Your task to perform on an android device: turn notification dots on Image 0: 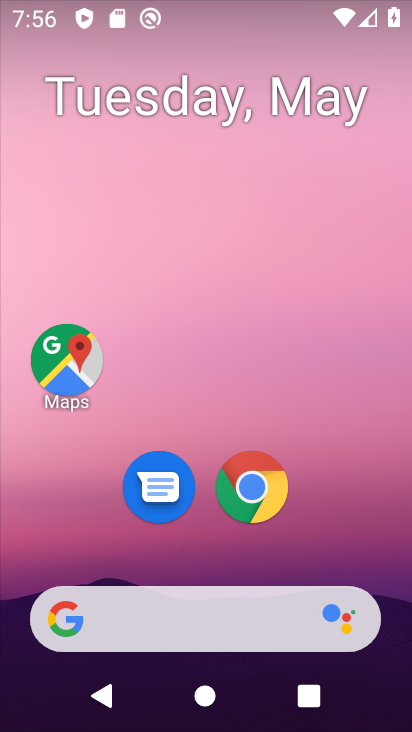
Step 0: drag from (330, 538) to (398, 122)
Your task to perform on an android device: turn notification dots on Image 1: 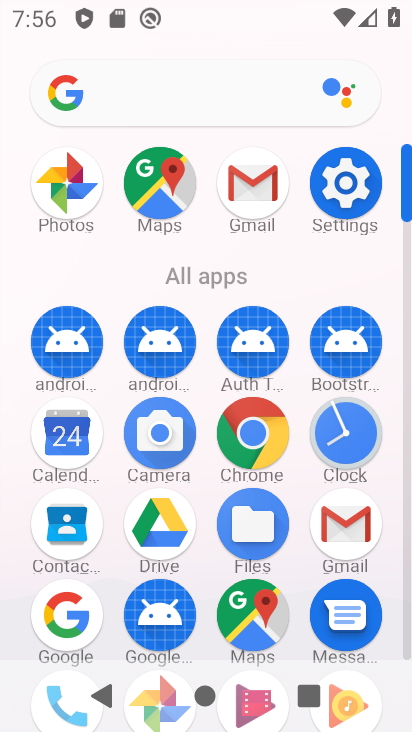
Step 1: click (339, 184)
Your task to perform on an android device: turn notification dots on Image 2: 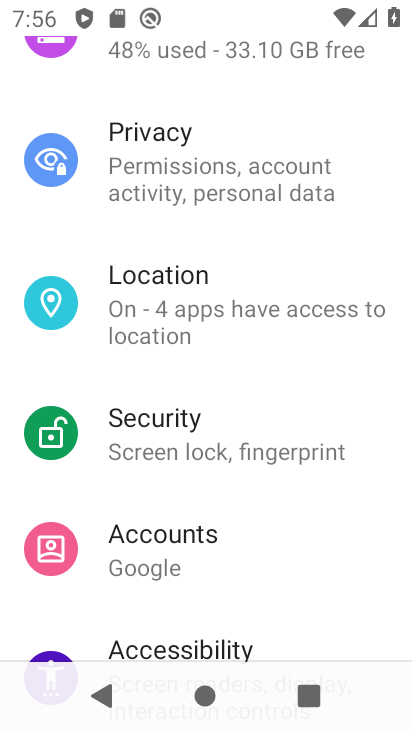
Step 2: drag from (352, 122) to (289, 513)
Your task to perform on an android device: turn notification dots on Image 3: 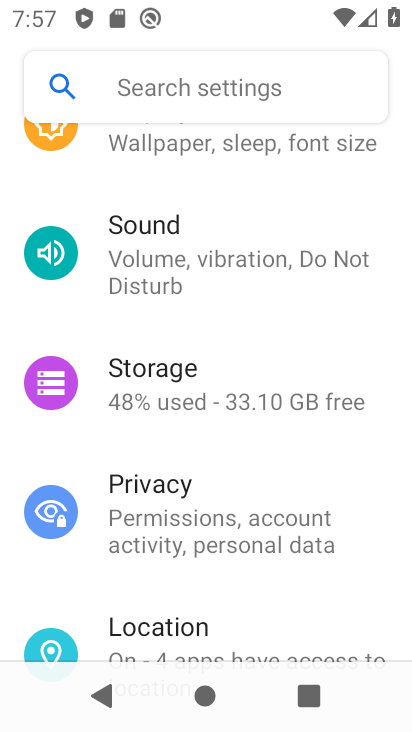
Step 3: drag from (303, 198) to (270, 551)
Your task to perform on an android device: turn notification dots on Image 4: 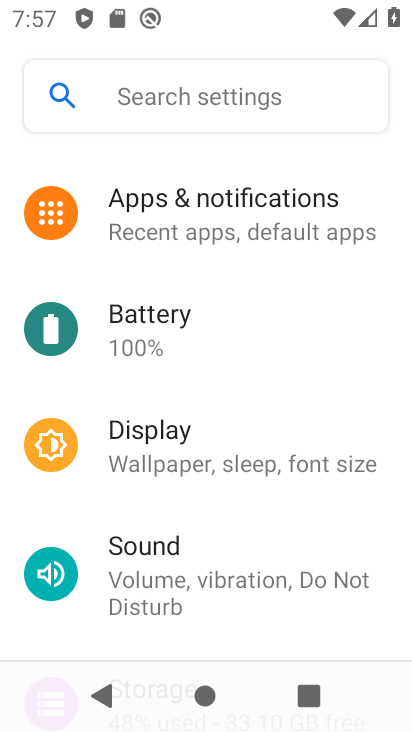
Step 4: click (281, 211)
Your task to perform on an android device: turn notification dots on Image 5: 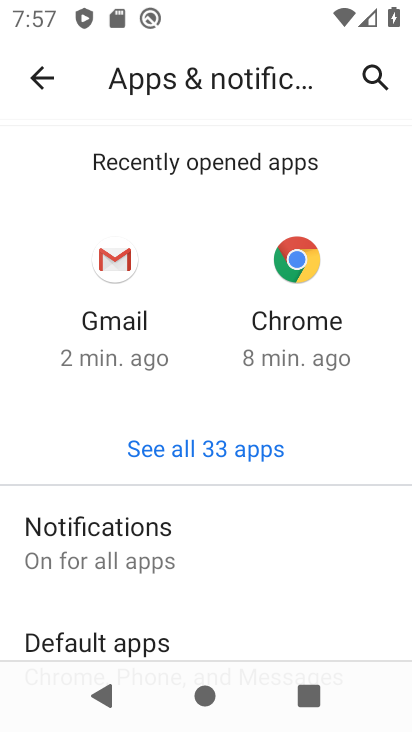
Step 5: click (134, 525)
Your task to perform on an android device: turn notification dots on Image 6: 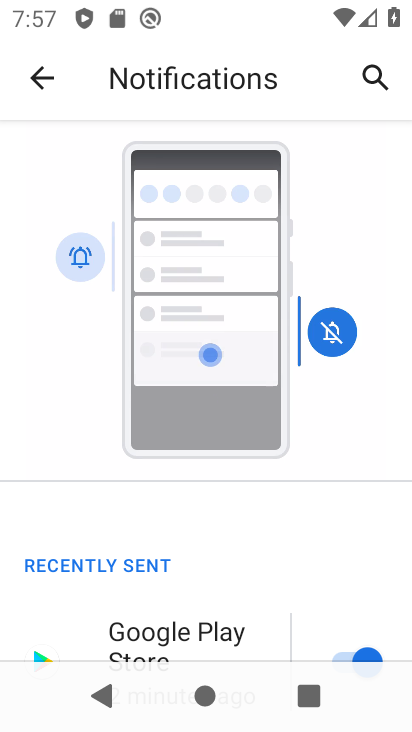
Step 6: drag from (295, 544) to (393, 188)
Your task to perform on an android device: turn notification dots on Image 7: 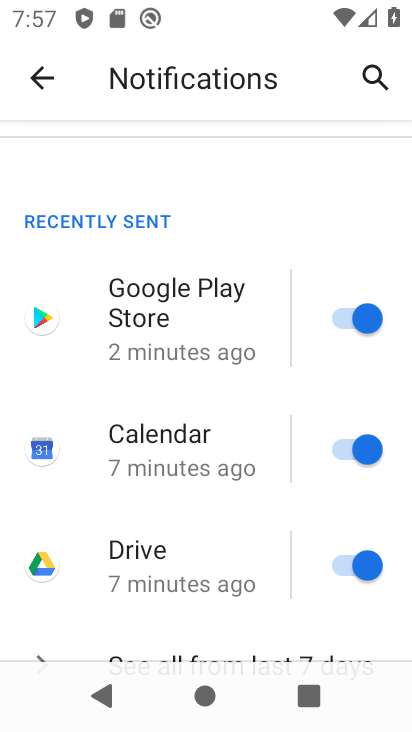
Step 7: drag from (305, 333) to (316, 198)
Your task to perform on an android device: turn notification dots on Image 8: 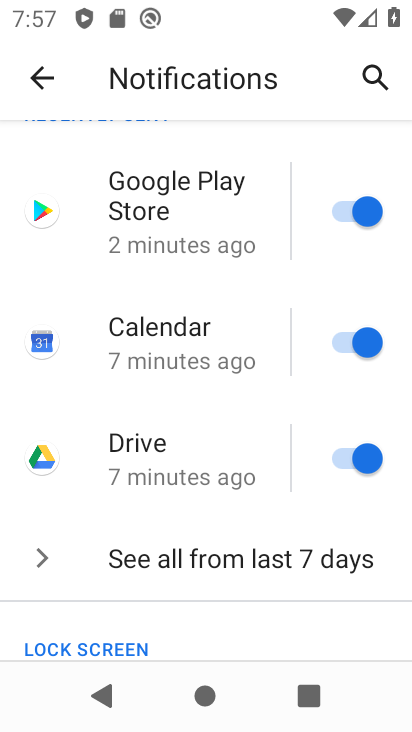
Step 8: drag from (273, 561) to (297, 330)
Your task to perform on an android device: turn notification dots on Image 9: 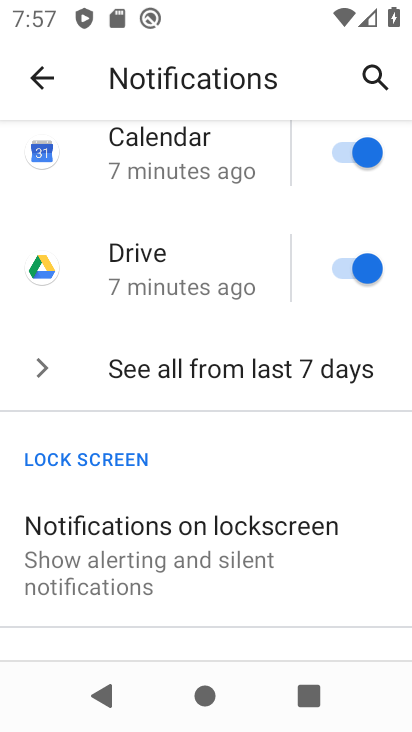
Step 9: drag from (342, 554) to (322, 160)
Your task to perform on an android device: turn notification dots on Image 10: 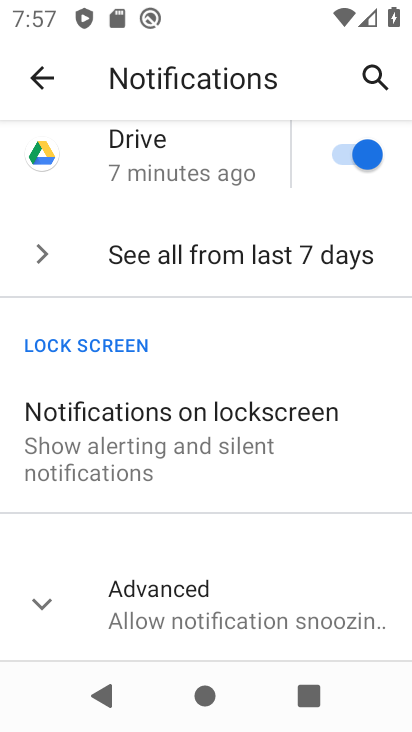
Step 10: click (148, 590)
Your task to perform on an android device: turn notification dots on Image 11: 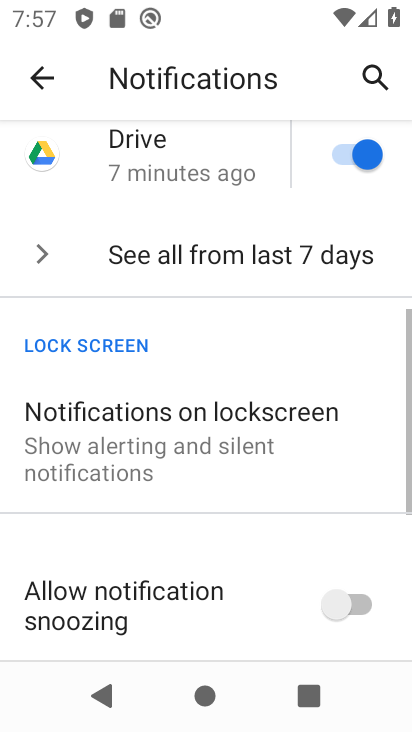
Step 11: task complete